Your task to perform on an android device: Open Google Chrome Image 0: 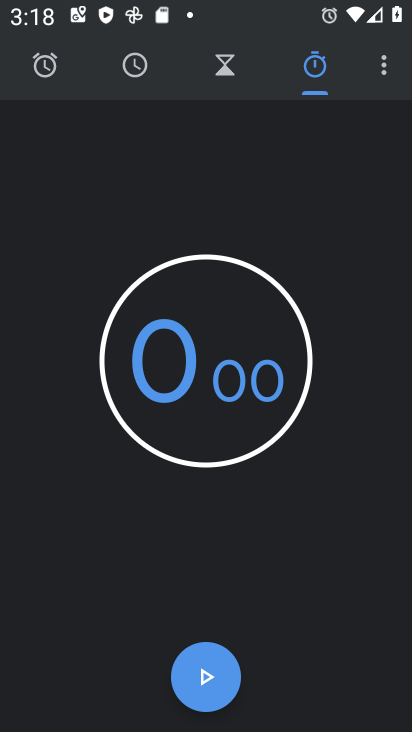
Step 0: press home button
Your task to perform on an android device: Open Google Chrome Image 1: 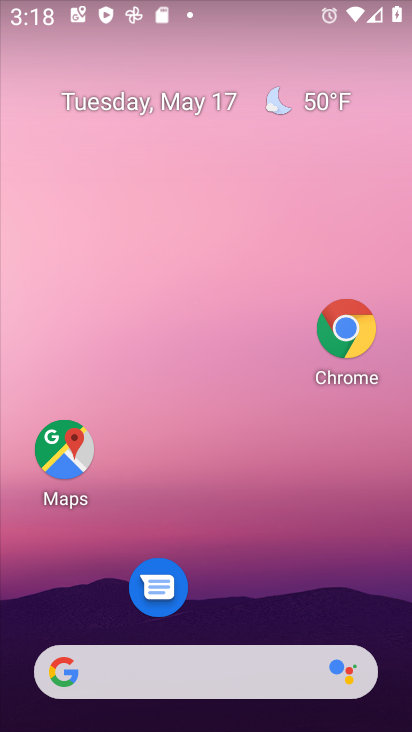
Step 1: drag from (277, 617) to (271, 203)
Your task to perform on an android device: Open Google Chrome Image 2: 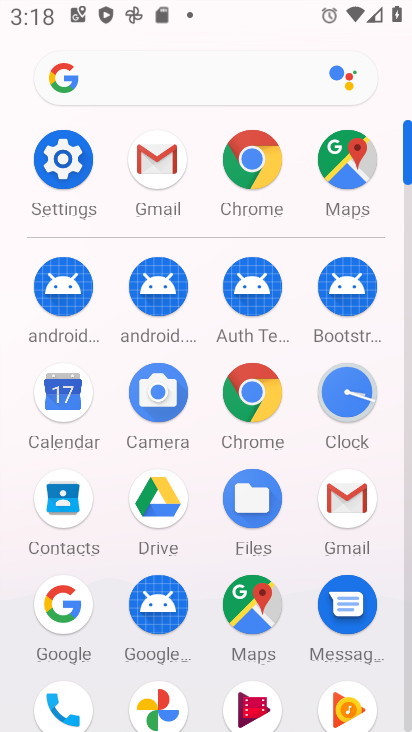
Step 2: click (286, 427)
Your task to perform on an android device: Open Google Chrome Image 3: 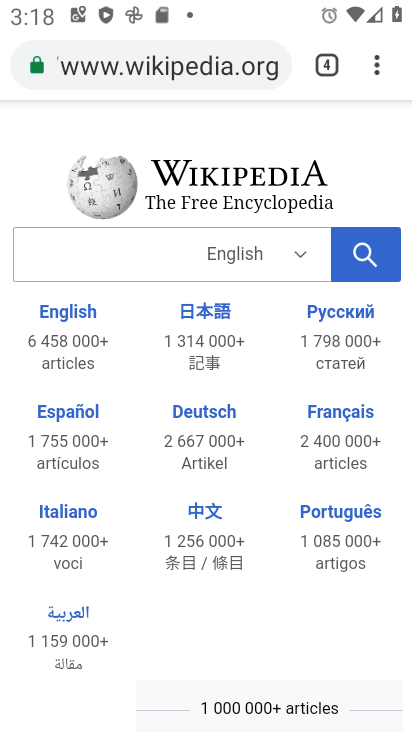
Step 3: task complete